Your task to perform on an android device: Open the phone app and click the voicemail tab. Image 0: 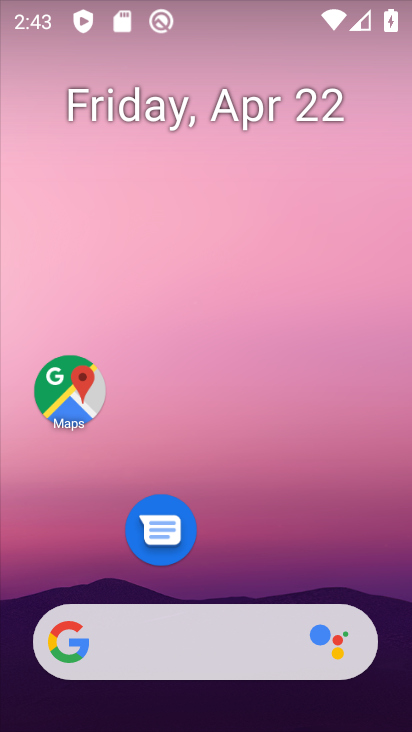
Step 0: drag from (253, 546) to (250, 1)
Your task to perform on an android device: Open the phone app and click the voicemail tab. Image 1: 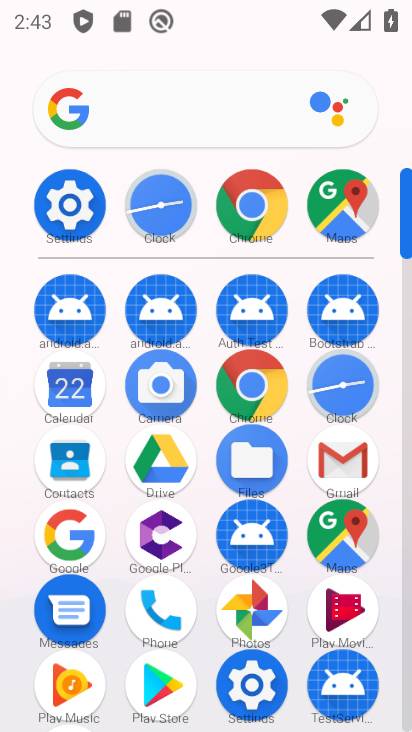
Step 1: click (149, 618)
Your task to perform on an android device: Open the phone app and click the voicemail tab. Image 2: 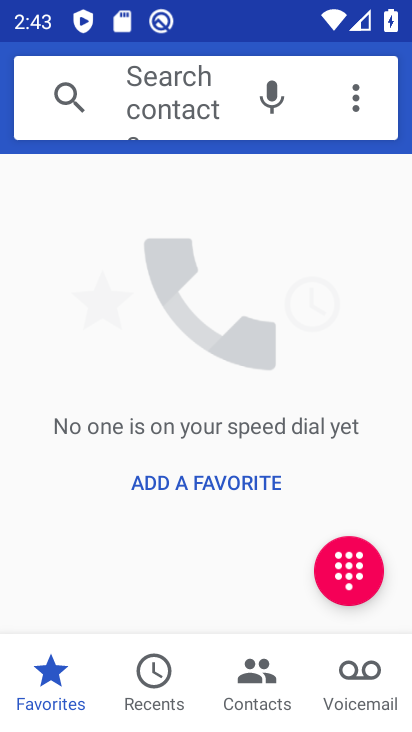
Step 2: click (356, 684)
Your task to perform on an android device: Open the phone app and click the voicemail tab. Image 3: 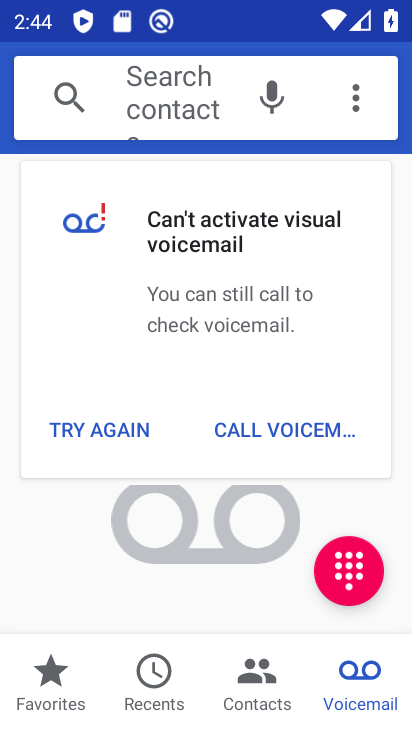
Step 3: task complete